Your task to perform on an android device: Show me popular games on the Play Store Image 0: 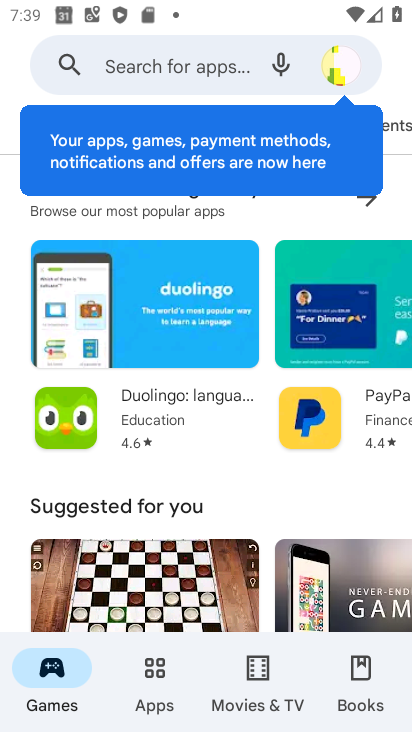
Step 0: click (131, 64)
Your task to perform on an android device: Show me popular games on the Play Store Image 1: 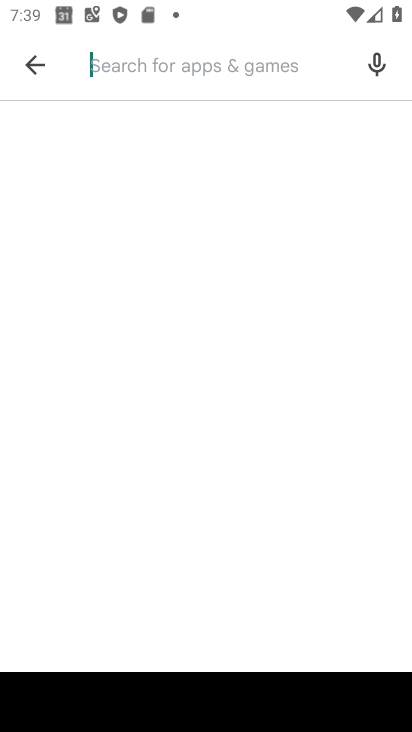
Step 1: type "popular games"
Your task to perform on an android device: Show me popular games on the Play Store Image 2: 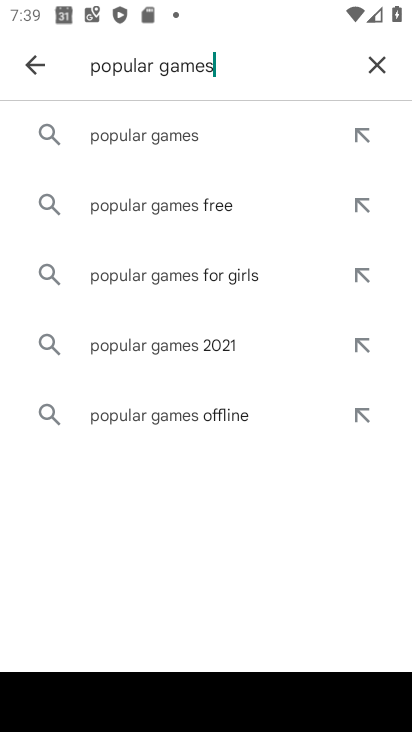
Step 2: click (161, 140)
Your task to perform on an android device: Show me popular games on the Play Store Image 3: 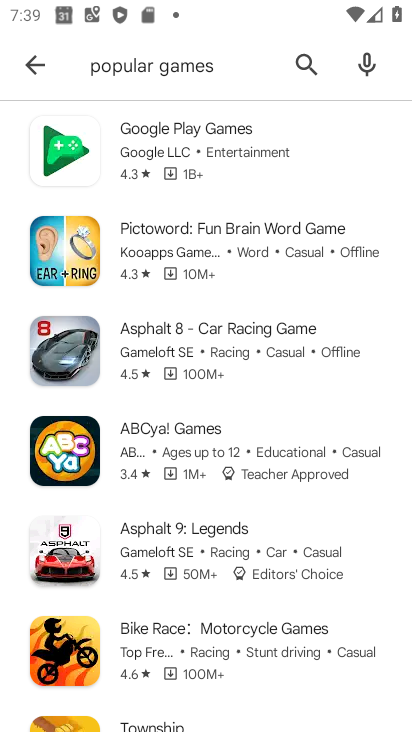
Step 3: task complete